Your task to perform on an android device: see creations saved in the google photos Image 0: 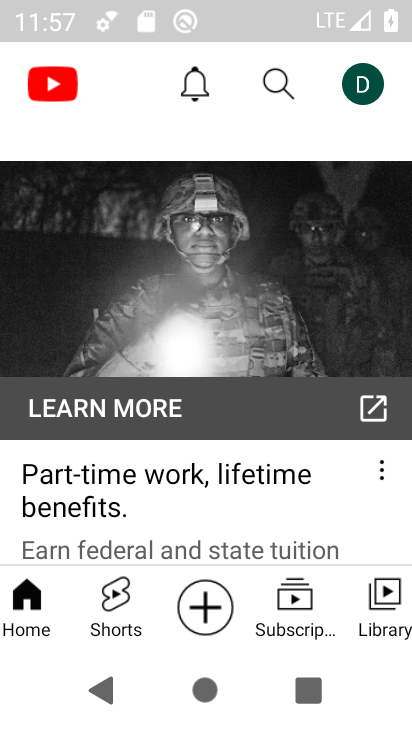
Step 0: press home button
Your task to perform on an android device: see creations saved in the google photos Image 1: 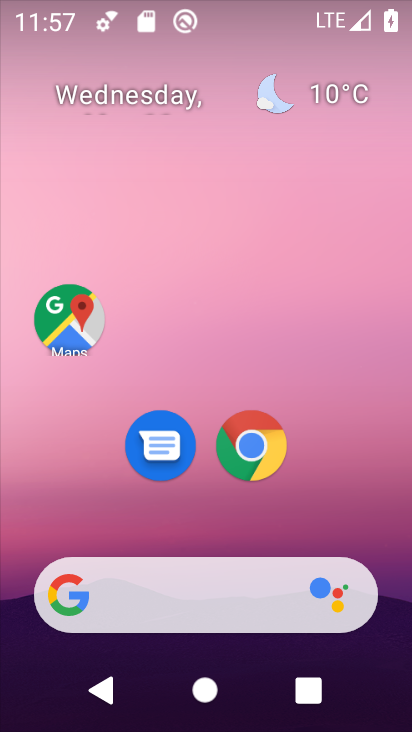
Step 1: drag from (195, 509) to (236, 27)
Your task to perform on an android device: see creations saved in the google photos Image 2: 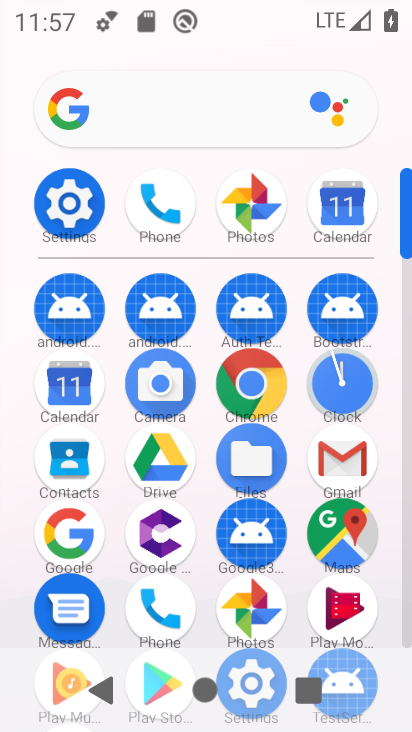
Step 2: click (256, 611)
Your task to perform on an android device: see creations saved in the google photos Image 3: 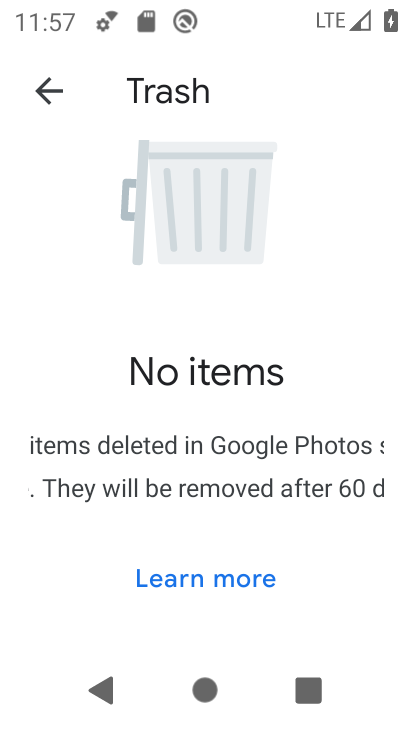
Step 3: click (42, 76)
Your task to perform on an android device: see creations saved in the google photos Image 4: 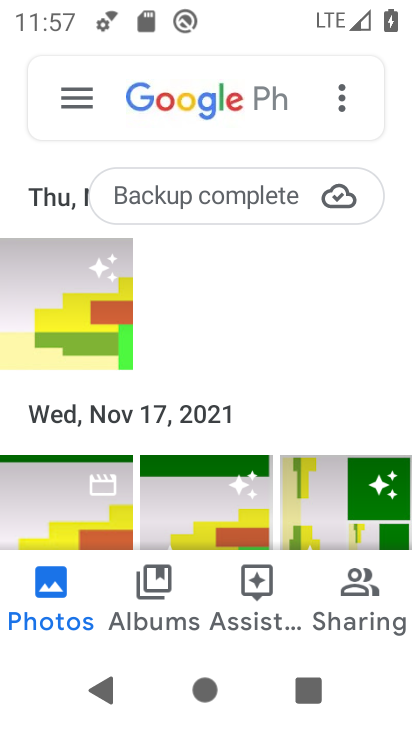
Step 4: click (60, 87)
Your task to perform on an android device: see creations saved in the google photos Image 5: 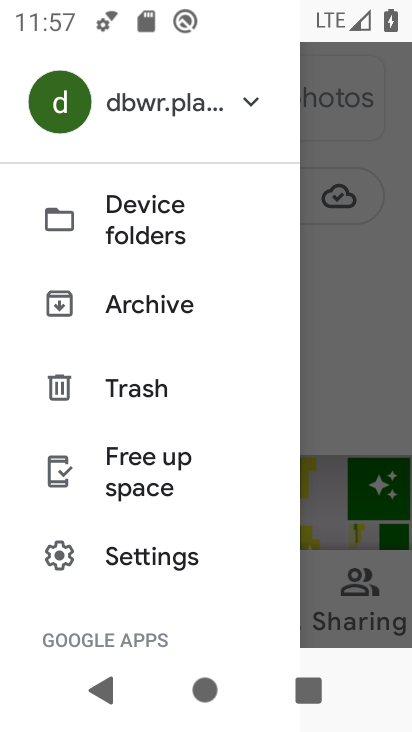
Step 5: click (158, 282)
Your task to perform on an android device: see creations saved in the google photos Image 6: 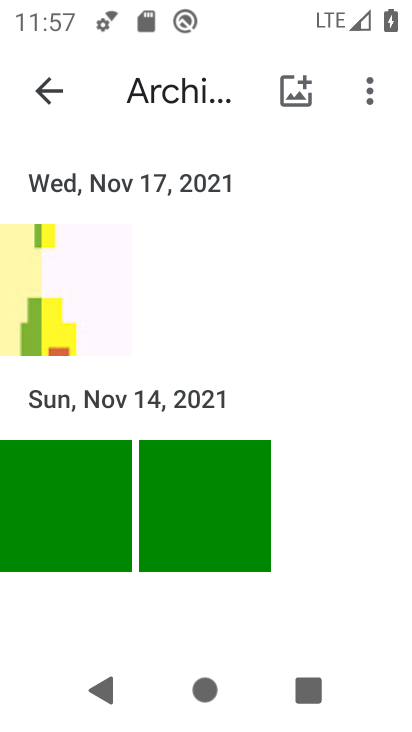
Step 6: task complete